Your task to perform on an android device: Search for Italian restaurants on Maps Image 0: 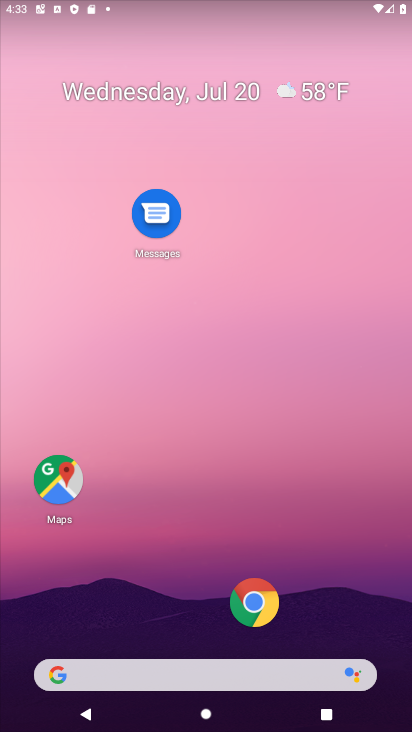
Step 0: click (59, 484)
Your task to perform on an android device: Search for Italian restaurants on Maps Image 1: 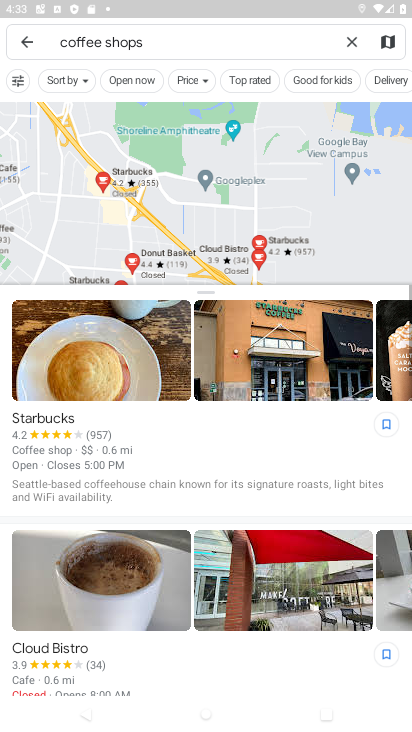
Step 1: click (347, 37)
Your task to perform on an android device: Search for Italian restaurants on Maps Image 2: 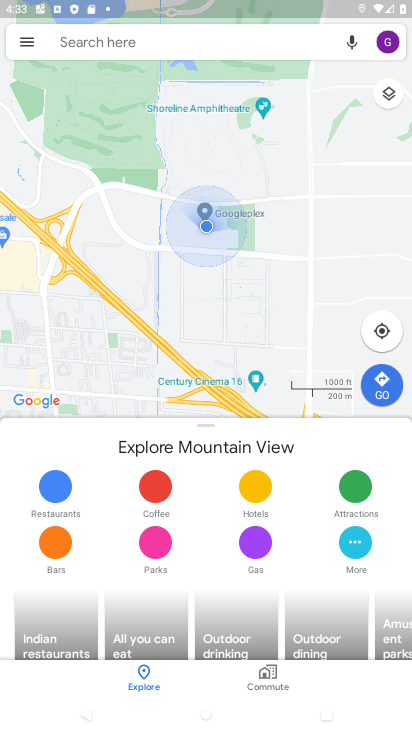
Step 2: click (197, 45)
Your task to perform on an android device: Search for Italian restaurants on Maps Image 3: 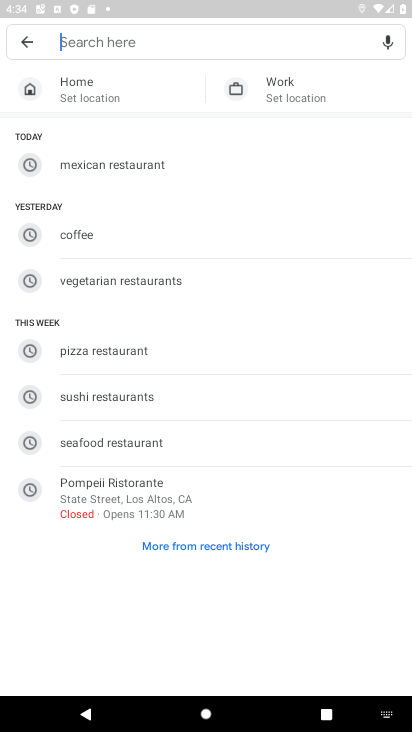
Step 3: type "italian restaurants"
Your task to perform on an android device: Search for Italian restaurants on Maps Image 4: 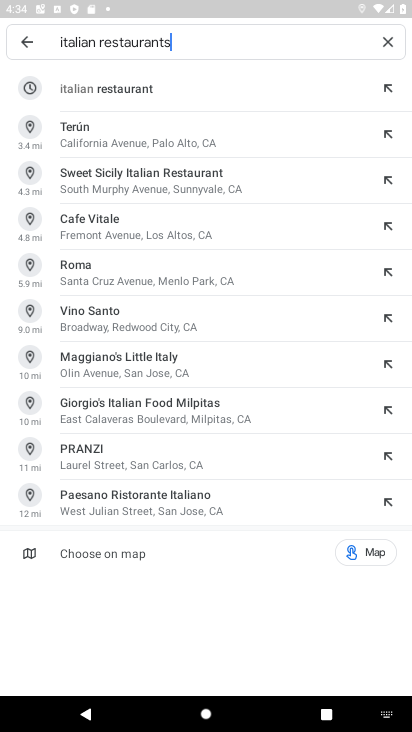
Step 4: click (154, 93)
Your task to perform on an android device: Search for Italian restaurants on Maps Image 5: 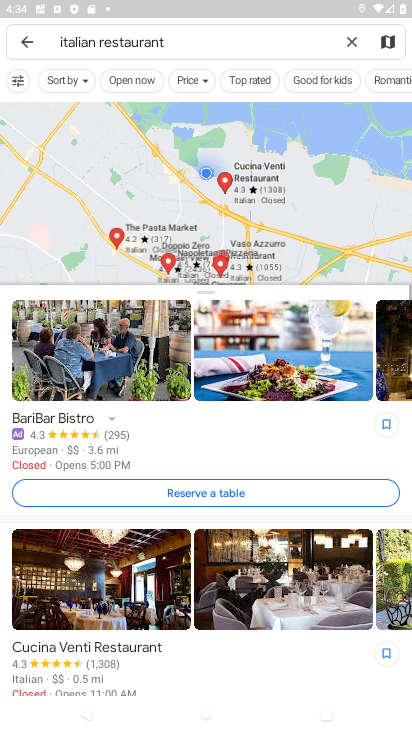
Step 5: task complete